Your task to perform on an android device: make emails show in primary in the gmail app Image 0: 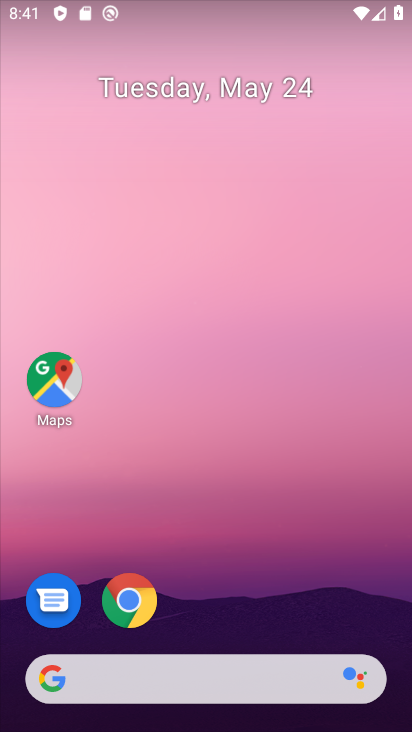
Step 0: drag from (239, 629) to (295, 162)
Your task to perform on an android device: make emails show in primary in the gmail app Image 1: 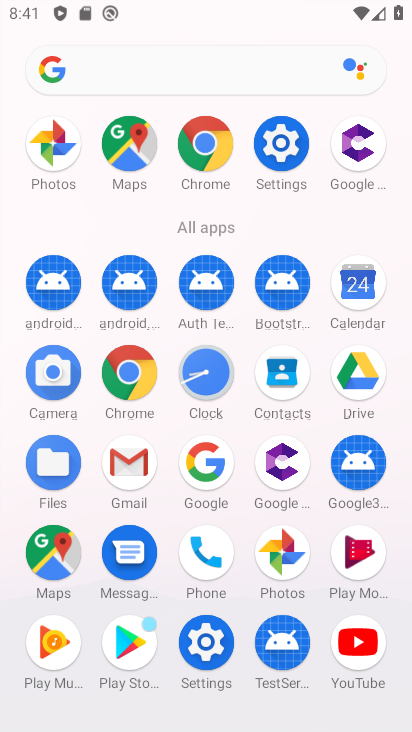
Step 1: click (123, 472)
Your task to perform on an android device: make emails show in primary in the gmail app Image 2: 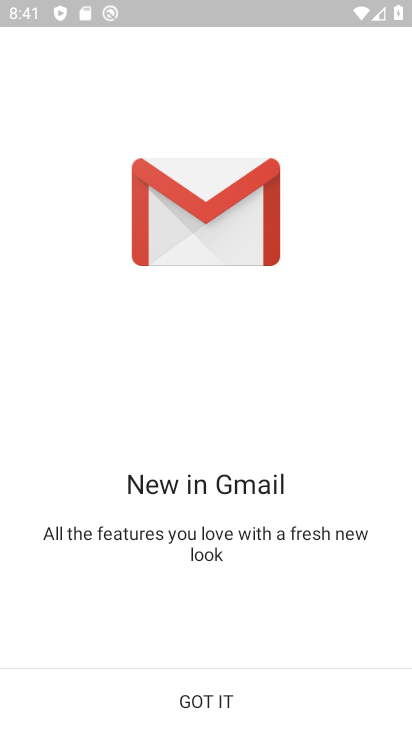
Step 2: click (202, 719)
Your task to perform on an android device: make emails show in primary in the gmail app Image 3: 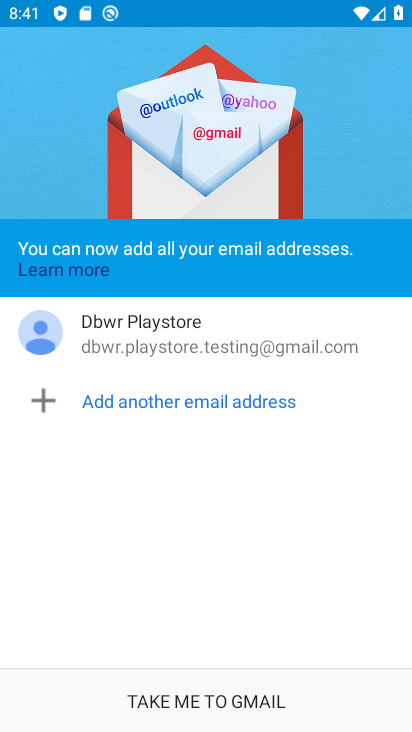
Step 3: click (202, 719)
Your task to perform on an android device: make emails show in primary in the gmail app Image 4: 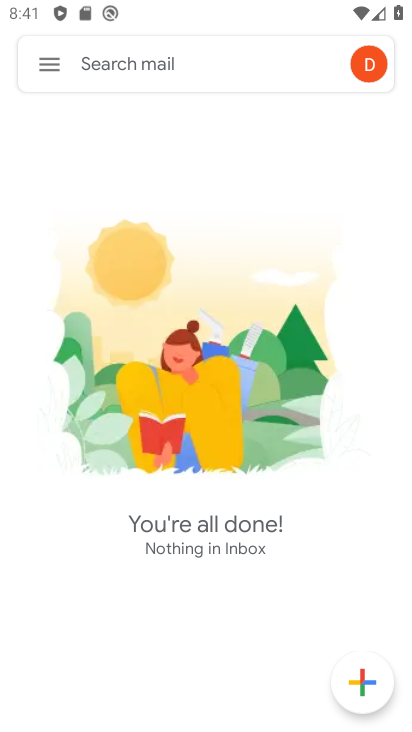
Step 4: click (53, 56)
Your task to perform on an android device: make emails show in primary in the gmail app Image 5: 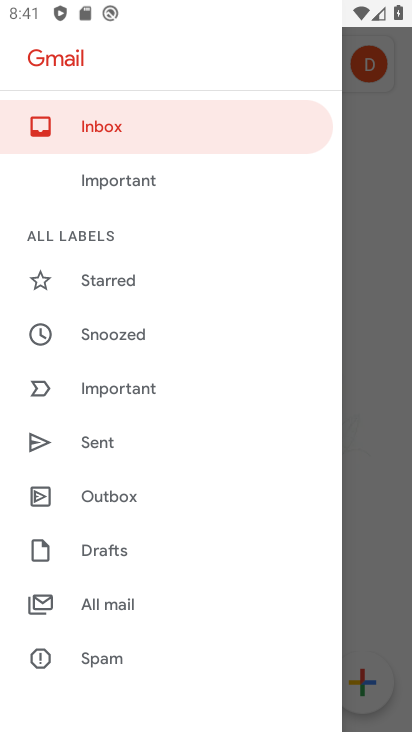
Step 5: click (105, 591)
Your task to perform on an android device: make emails show in primary in the gmail app Image 6: 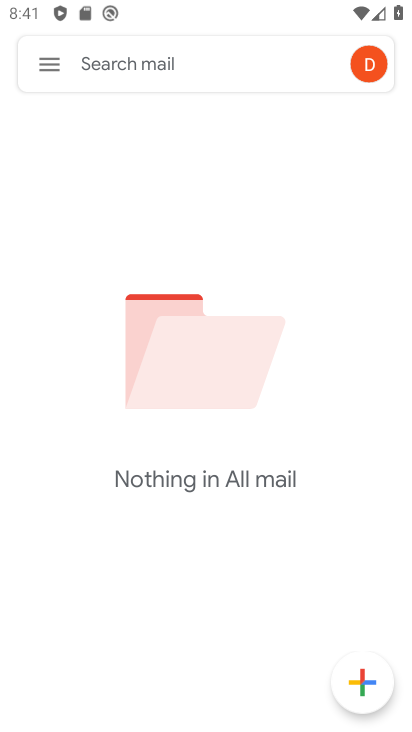
Step 6: click (105, 591)
Your task to perform on an android device: make emails show in primary in the gmail app Image 7: 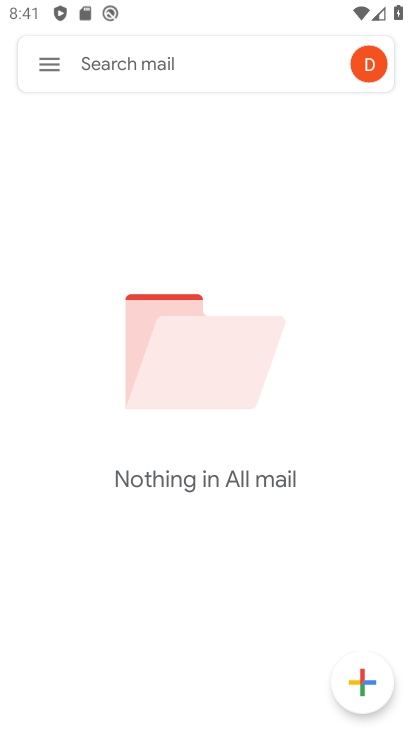
Step 7: click (105, 591)
Your task to perform on an android device: make emails show in primary in the gmail app Image 8: 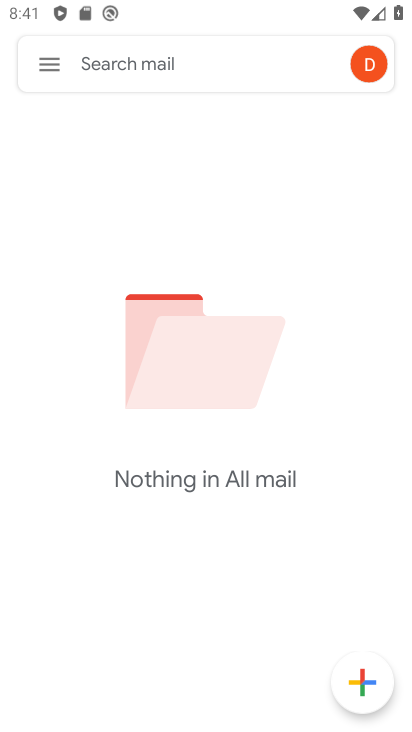
Step 8: task complete